Your task to perform on an android device: Clear the shopping cart on newegg. Search for razer thresher on newegg, select the first entry, add it to the cart, then select checkout. Image 0: 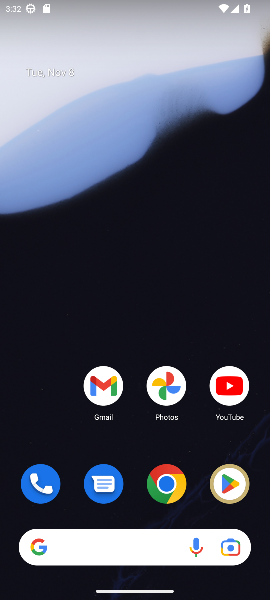
Step 0: click (158, 492)
Your task to perform on an android device: Clear the shopping cart on newegg. Search for razer thresher on newegg, select the first entry, add it to the cart, then select checkout. Image 1: 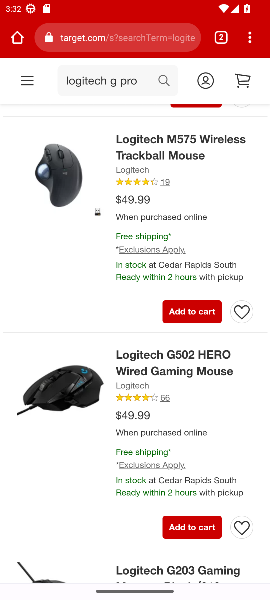
Step 1: click (161, 486)
Your task to perform on an android device: Clear the shopping cart on newegg. Search for razer thresher on newegg, select the first entry, add it to the cart, then select checkout. Image 2: 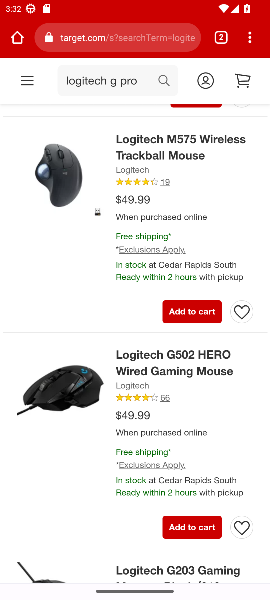
Step 2: click (68, 36)
Your task to perform on an android device: Clear the shopping cart on newegg. Search for razer thresher on newegg, select the first entry, add it to the cart, then select checkout. Image 3: 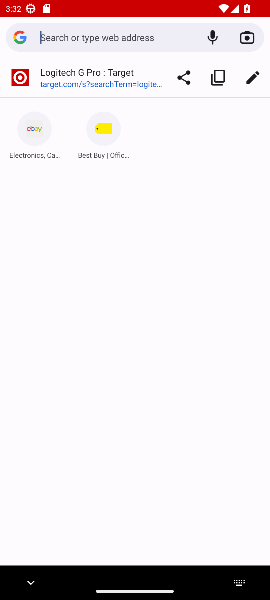
Step 3: type "newegg"
Your task to perform on an android device: Clear the shopping cart on newegg. Search for razer thresher on newegg, select the first entry, add it to the cart, then select checkout. Image 4: 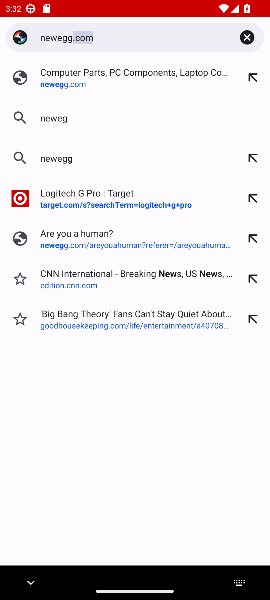
Step 4: type ""
Your task to perform on an android device: Clear the shopping cart on newegg. Search for razer thresher on newegg, select the first entry, add it to the cart, then select checkout. Image 5: 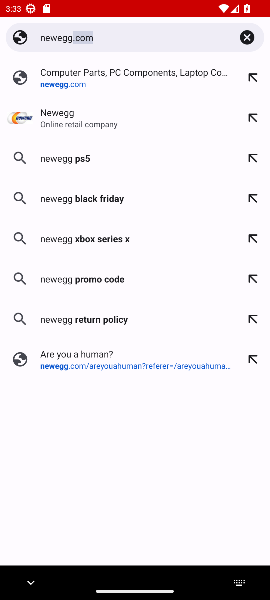
Step 5: click (84, 112)
Your task to perform on an android device: Clear the shopping cart on newegg. Search for razer thresher on newegg, select the first entry, add it to the cart, then select checkout. Image 6: 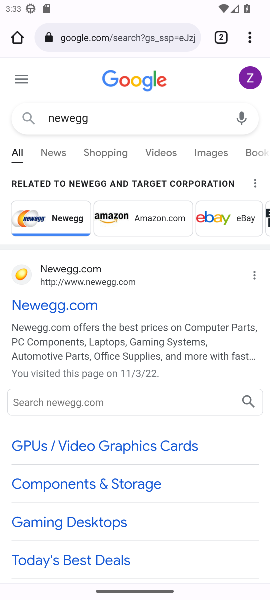
Step 6: click (75, 301)
Your task to perform on an android device: Clear the shopping cart on newegg. Search for razer thresher on newegg, select the first entry, add it to the cart, then select checkout. Image 7: 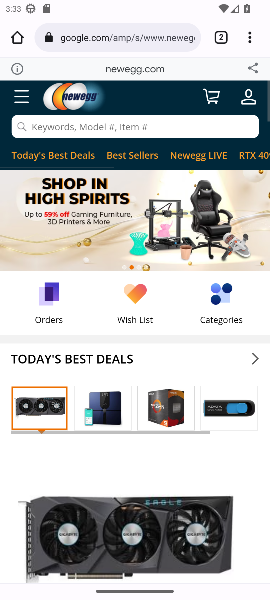
Step 7: click (207, 101)
Your task to perform on an android device: Clear the shopping cart on newegg. Search for razer thresher on newegg, select the first entry, add it to the cart, then select checkout. Image 8: 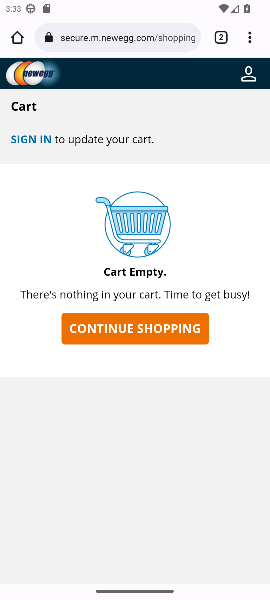
Step 8: press back button
Your task to perform on an android device: Clear the shopping cart on newegg. Search for razer thresher on newegg, select the first entry, add it to the cart, then select checkout. Image 9: 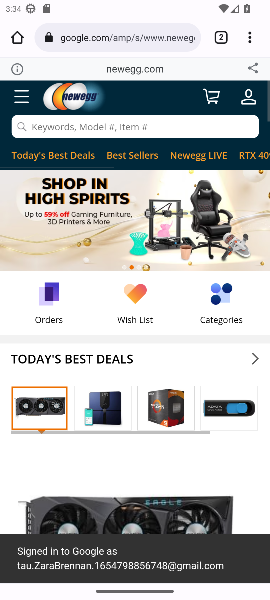
Step 9: click (76, 124)
Your task to perform on an android device: Clear the shopping cart on newegg. Search for razer thresher on newegg, select the first entry, add it to the cart, then select checkout. Image 10: 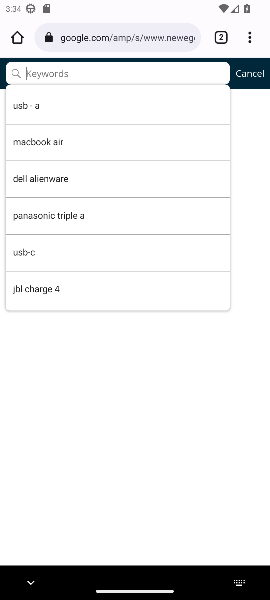
Step 10: type " razer thresher"
Your task to perform on an android device: Clear the shopping cart on newegg. Search for razer thresher on newegg, select the first entry, add it to the cart, then select checkout. Image 11: 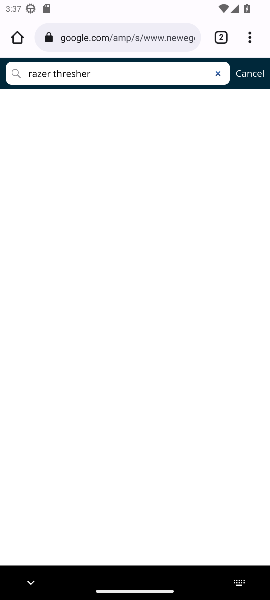
Step 11: task complete